Your task to perform on an android device: Open Amazon Image 0: 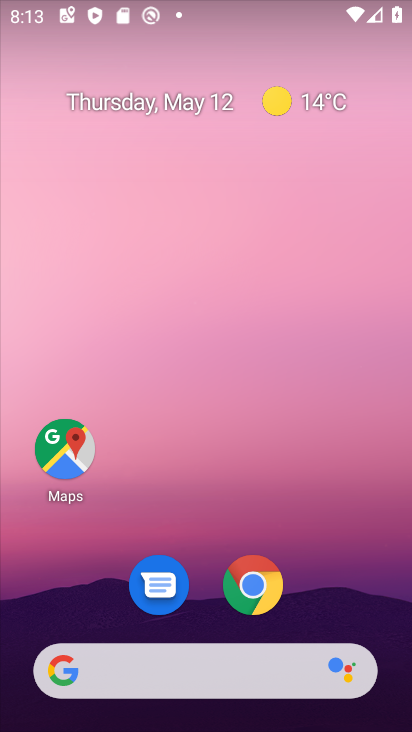
Step 0: click (258, 575)
Your task to perform on an android device: Open Amazon Image 1: 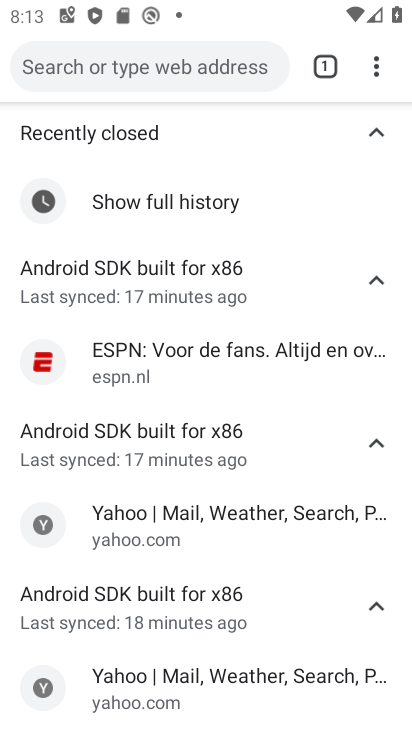
Step 1: click (374, 67)
Your task to perform on an android device: Open Amazon Image 2: 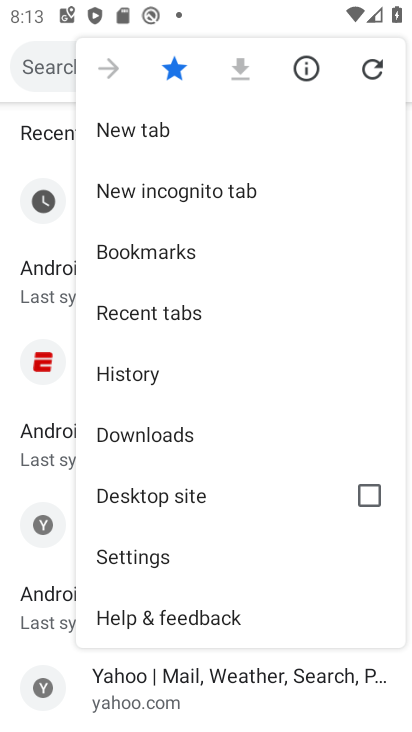
Step 2: click (304, 133)
Your task to perform on an android device: Open Amazon Image 3: 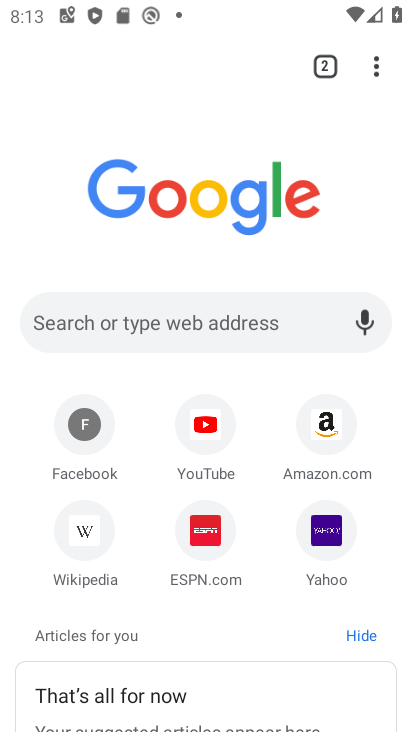
Step 3: click (321, 412)
Your task to perform on an android device: Open Amazon Image 4: 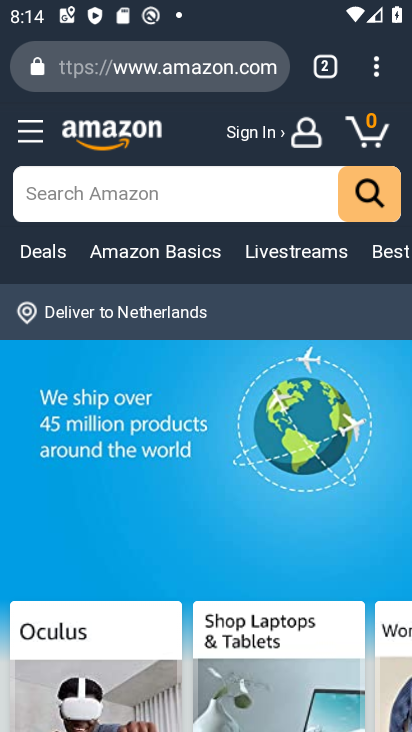
Step 4: task complete